Your task to perform on an android device: Go to calendar. Show me events next week Image 0: 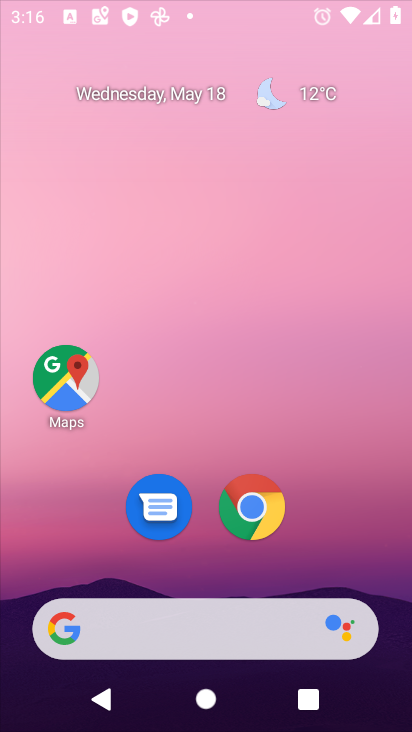
Step 0: press home button
Your task to perform on an android device: Go to calendar. Show me events next week Image 1: 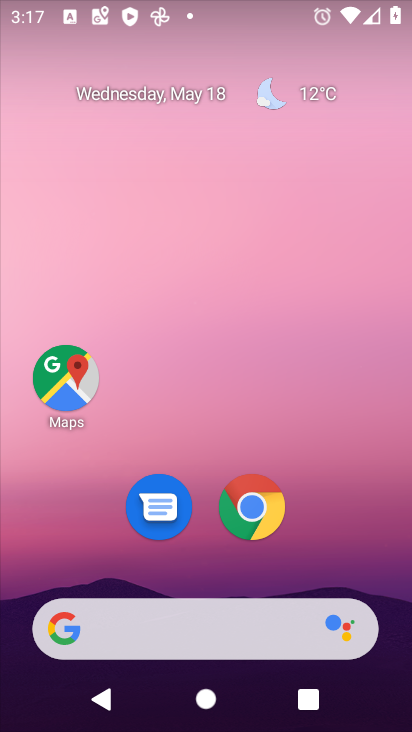
Step 1: drag from (390, 619) to (240, 141)
Your task to perform on an android device: Go to calendar. Show me events next week Image 2: 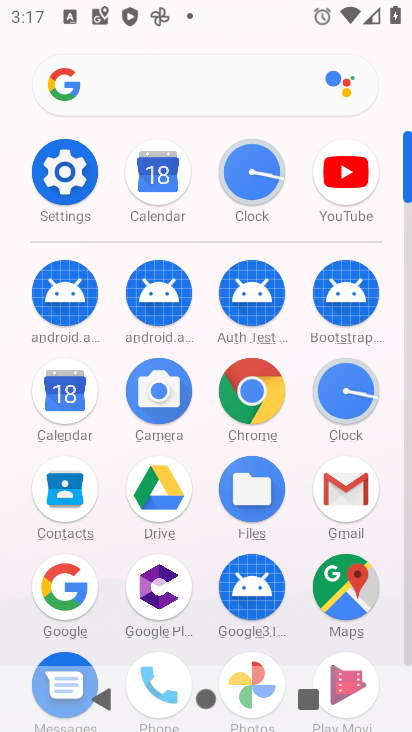
Step 2: click (408, 658)
Your task to perform on an android device: Go to calendar. Show me events next week Image 3: 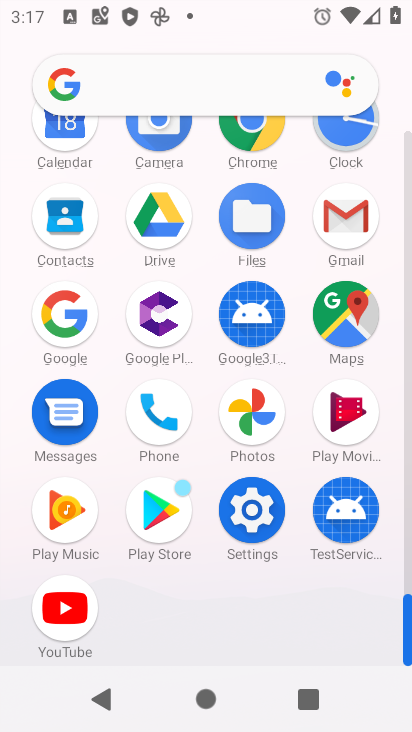
Step 3: click (65, 135)
Your task to perform on an android device: Go to calendar. Show me events next week Image 4: 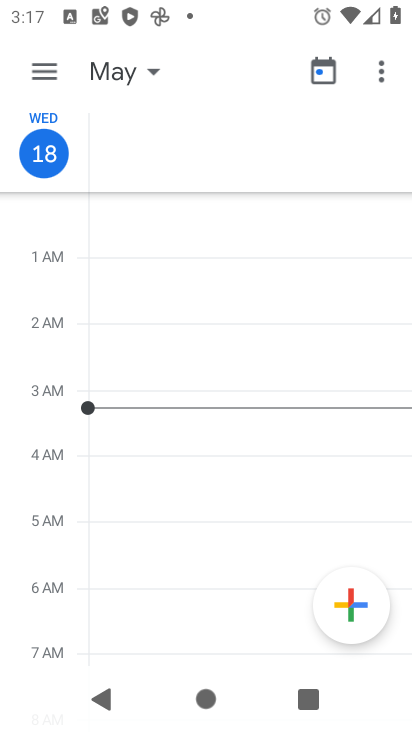
Step 4: click (45, 68)
Your task to perform on an android device: Go to calendar. Show me events next week Image 5: 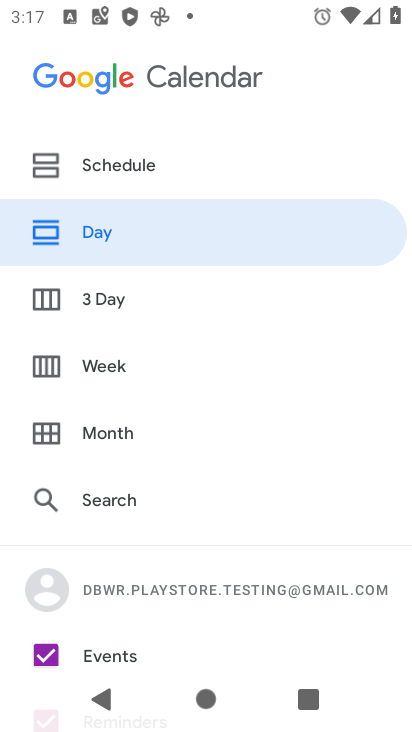
Step 5: click (115, 359)
Your task to perform on an android device: Go to calendar. Show me events next week Image 6: 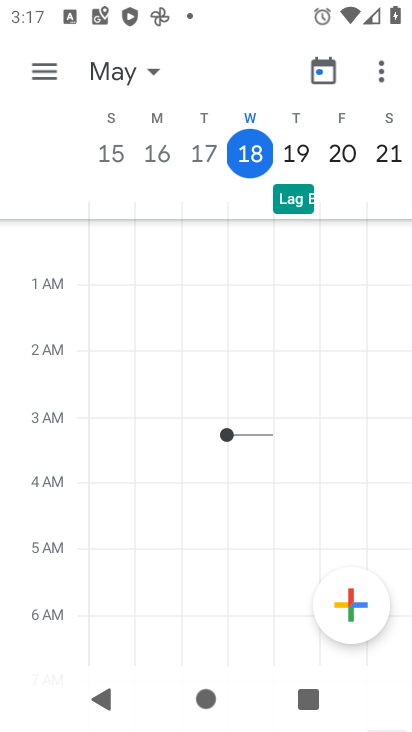
Step 6: click (151, 68)
Your task to perform on an android device: Go to calendar. Show me events next week Image 7: 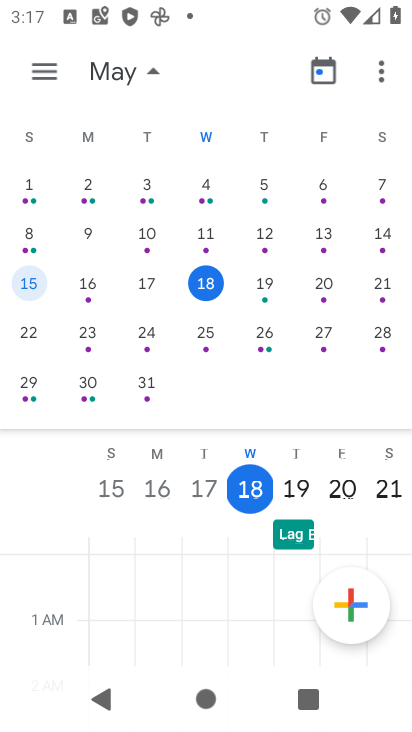
Step 7: click (31, 326)
Your task to perform on an android device: Go to calendar. Show me events next week Image 8: 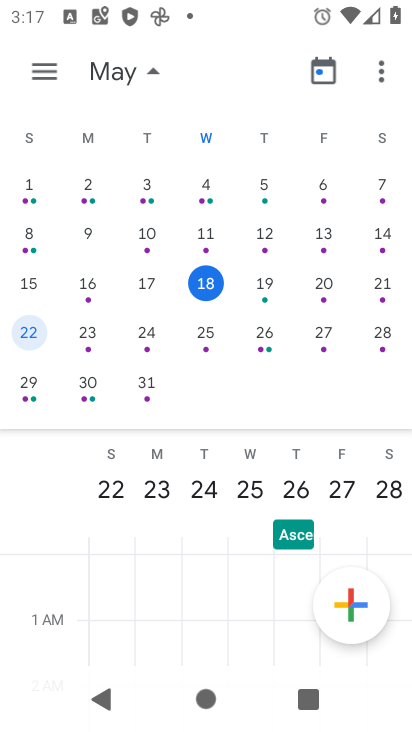
Step 8: task complete